Your task to perform on an android device: check out phone information Image 0: 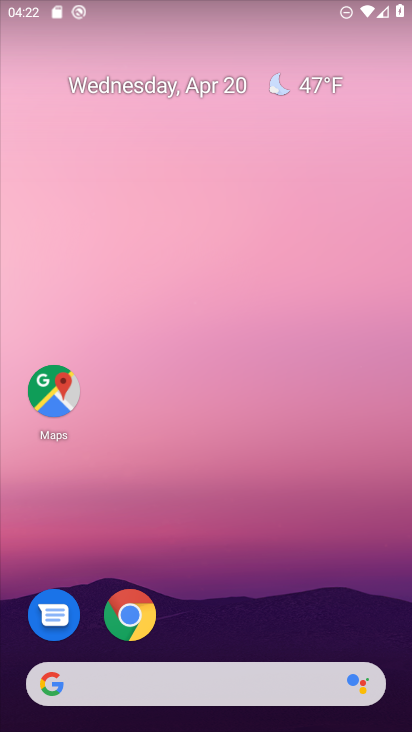
Step 0: drag from (220, 312) to (262, 2)
Your task to perform on an android device: check out phone information Image 1: 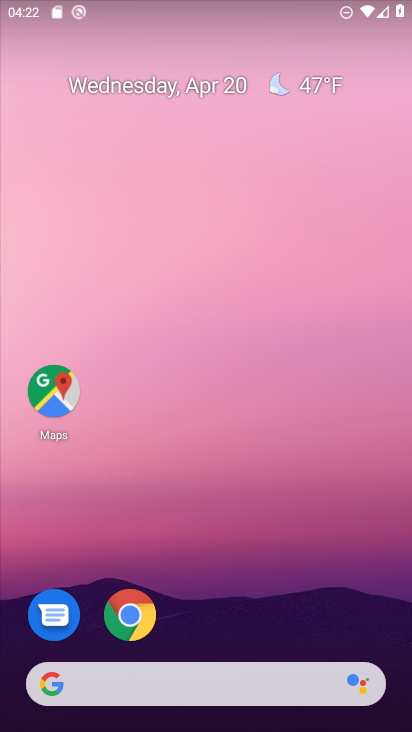
Step 1: drag from (225, 638) to (237, 0)
Your task to perform on an android device: check out phone information Image 2: 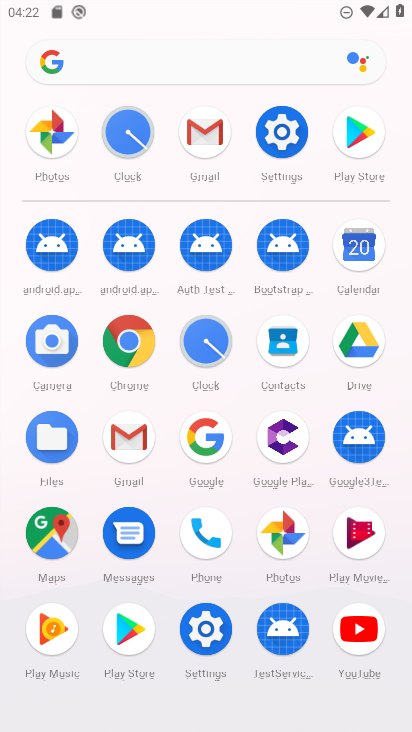
Step 2: click (289, 127)
Your task to perform on an android device: check out phone information Image 3: 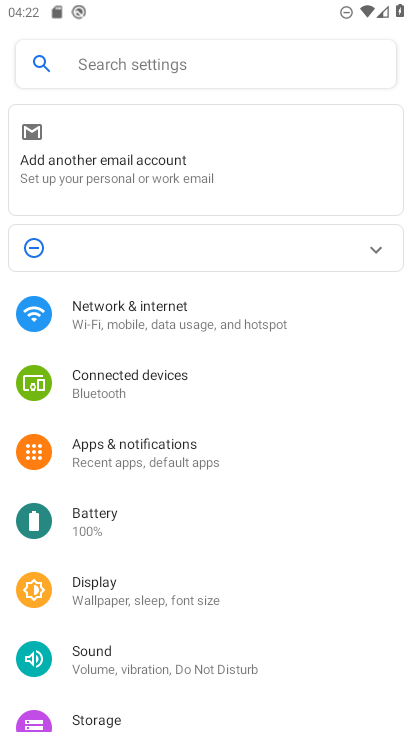
Step 3: drag from (177, 648) to (165, 23)
Your task to perform on an android device: check out phone information Image 4: 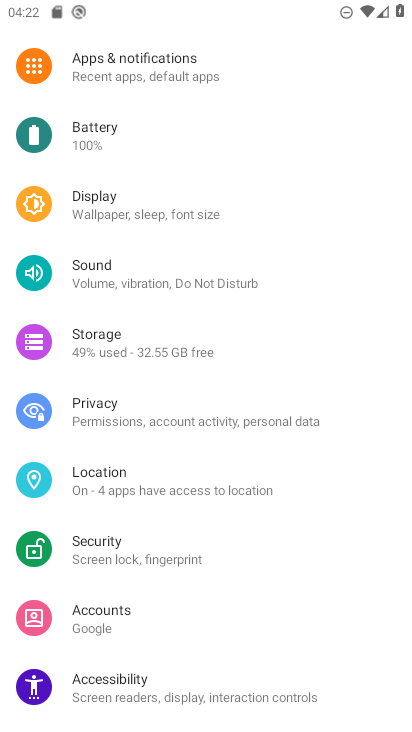
Step 4: drag from (191, 600) to (231, 50)
Your task to perform on an android device: check out phone information Image 5: 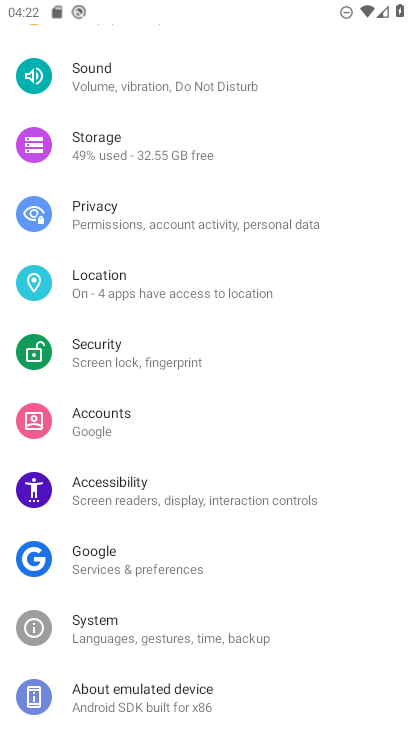
Step 5: click (236, 680)
Your task to perform on an android device: check out phone information Image 6: 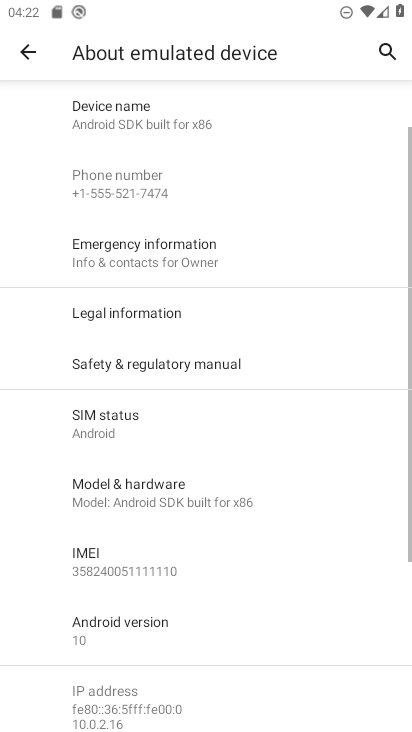
Step 6: click (273, 510)
Your task to perform on an android device: check out phone information Image 7: 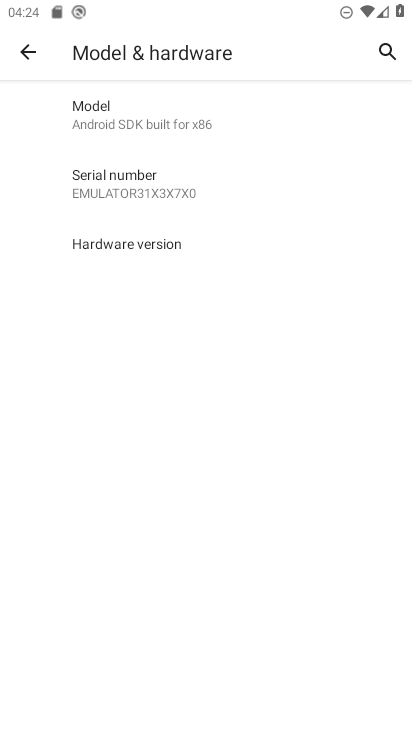
Step 7: task complete